Your task to perform on an android device: clear history in the chrome app Image 0: 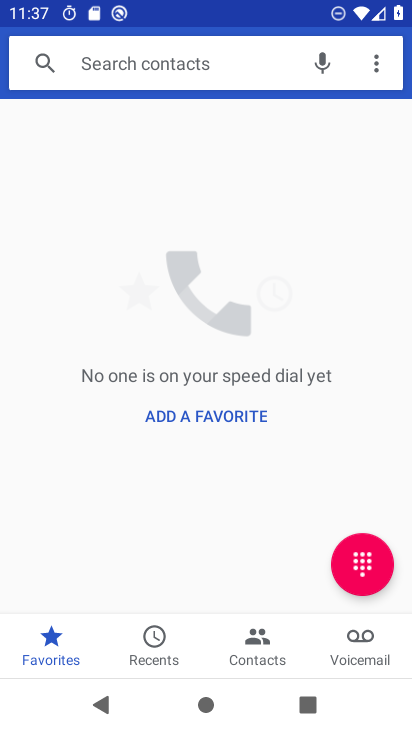
Step 0: press home button
Your task to perform on an android device: clear history in the chrome app Image 1: 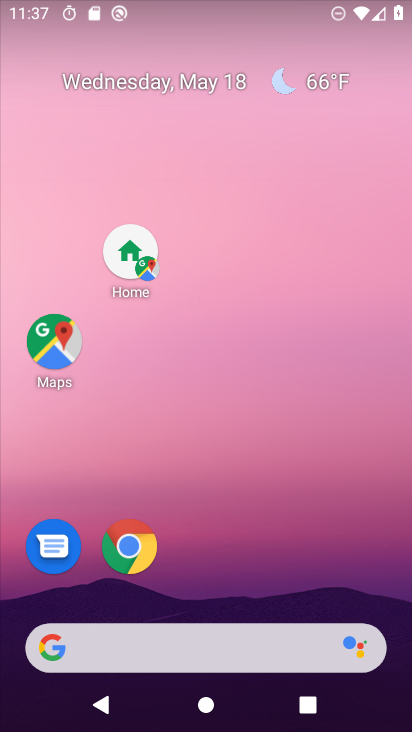
Step 1: click (131, 548)
Your task to perform on an android device: clear history in the chrome app Image 2: 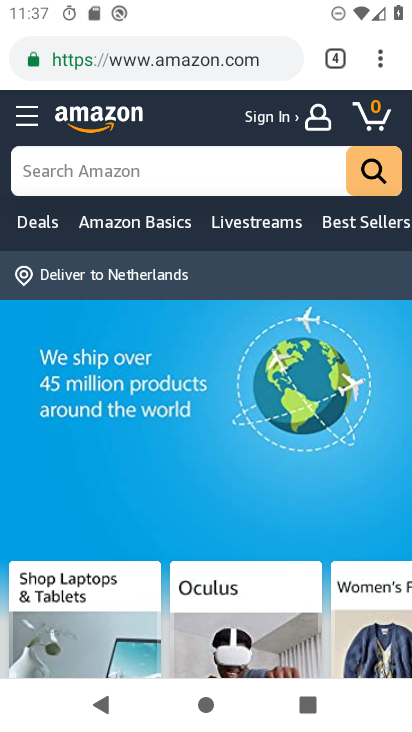
Step 2: click (369, 63)
Your task to perform on an android device: clear history in the chrome app Image 3: 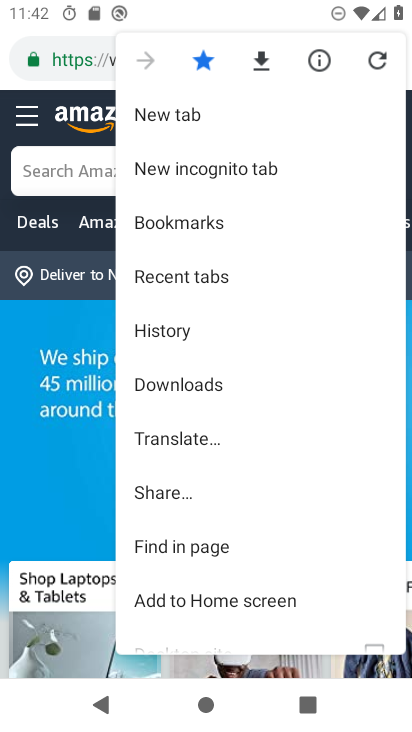
Step 3: click (195, 315)
Your task to perform on an android device: clear history in the chrome app Image 4: 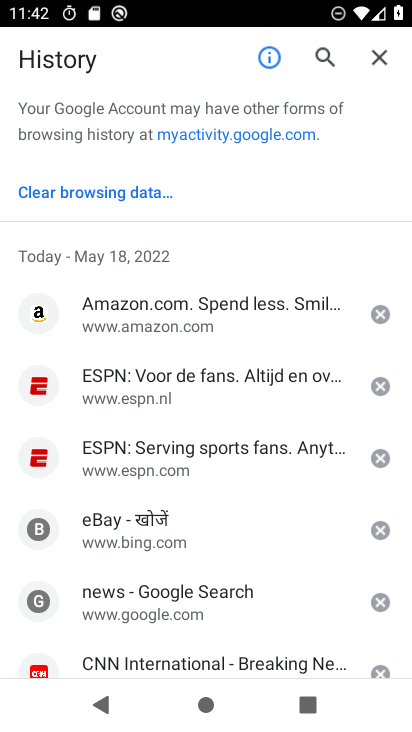
Step 4: click (113, 205)
Your task to perform on an android device: clear history in the chrome app Image 5: 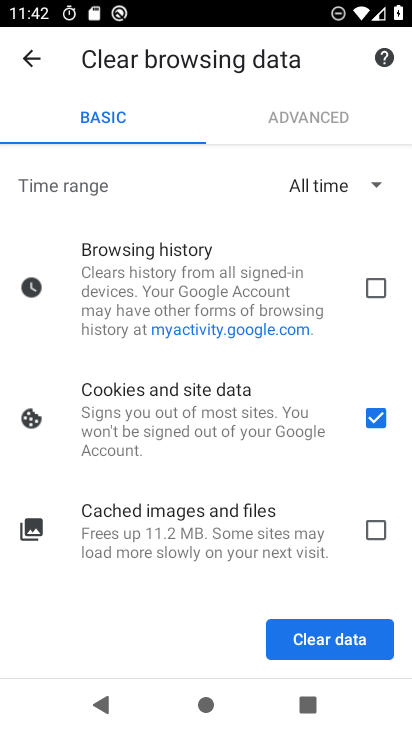
Step 5: click (368, 300)
Your task to perform on an android device: clear history in the chrome app Image 6: 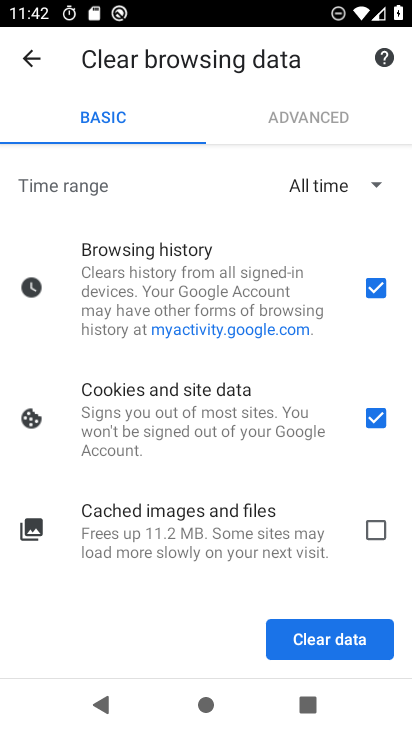
Step 6: click (373, 409)
Your task to perform on an android device: clear history in the chrome app Image 7: 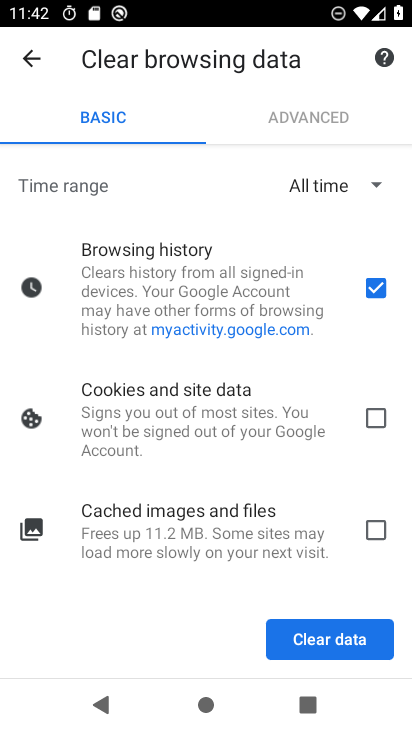
Step 7: click (310, 630)
Your task to perform on an android device: clear history in the chrome app Image 8: 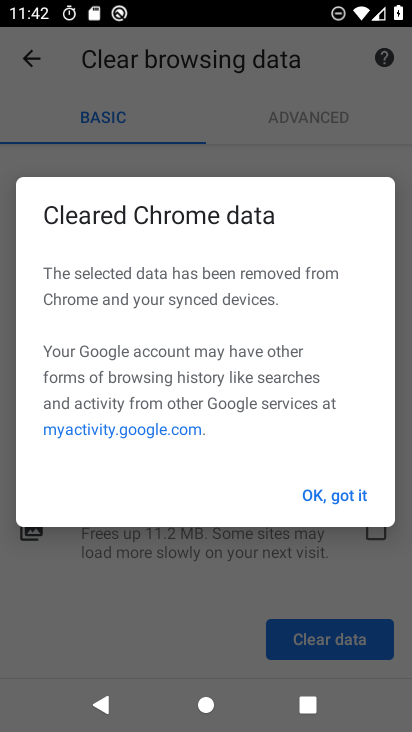
Step 8: click (350, 498)
Your task to perform on an android device: clear history in the chrome app Image 9: 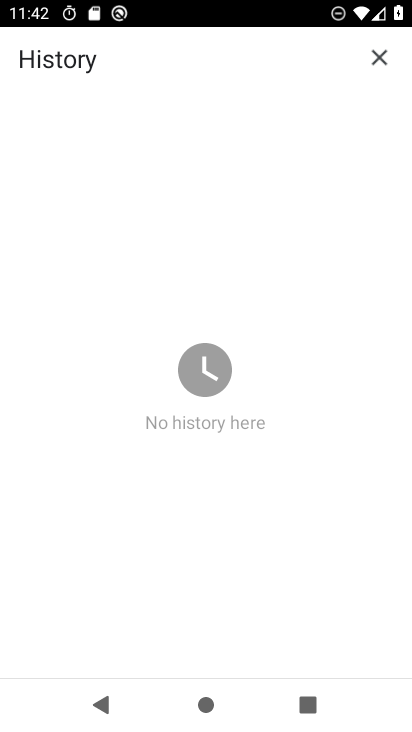
Step 9: task complete